Your task to perform on an android device: turn on wifi Image 0: 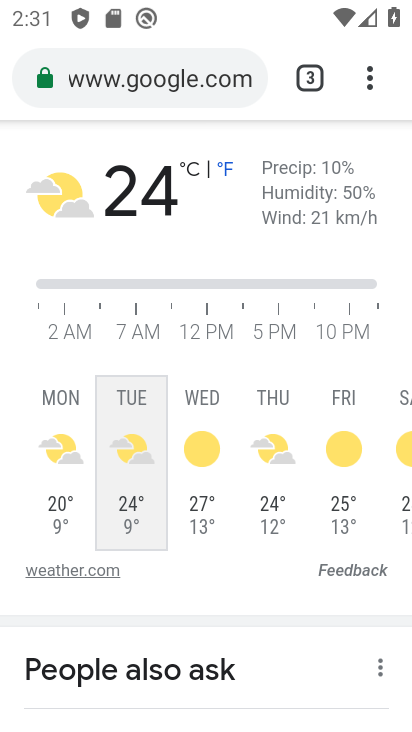
Step 0: press home button
Your task to perform on an android device: turn on wifi Image 1: 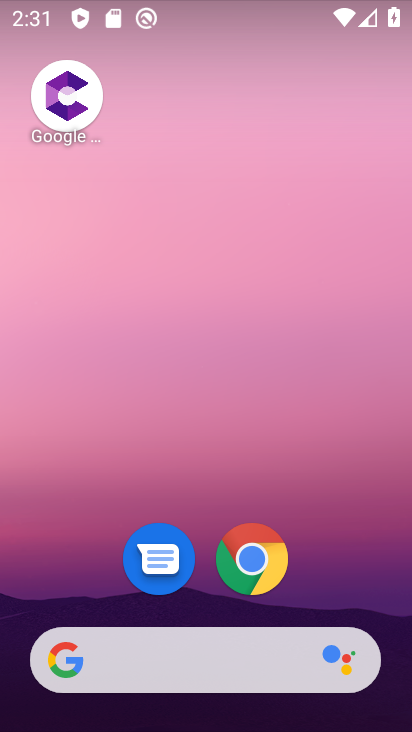
Step 1: press home button
Your task to perform on an android device: turn on wifi Image 2: 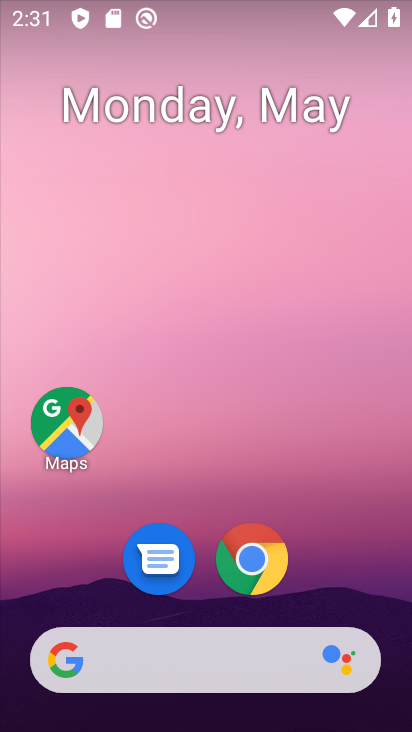
Step 2: drag from (185, 465) to (114, 82)
Your task to perform on an android device: turn on wifi Image 3: 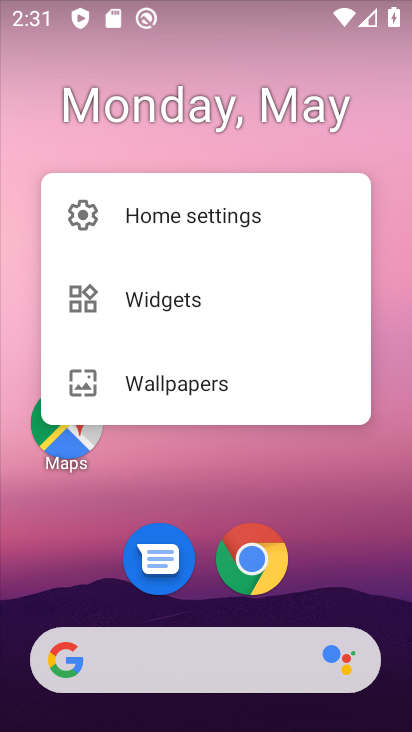
Step 3: click (228, 471)
Your task to perform on an android device: turn on wifi Image 4: 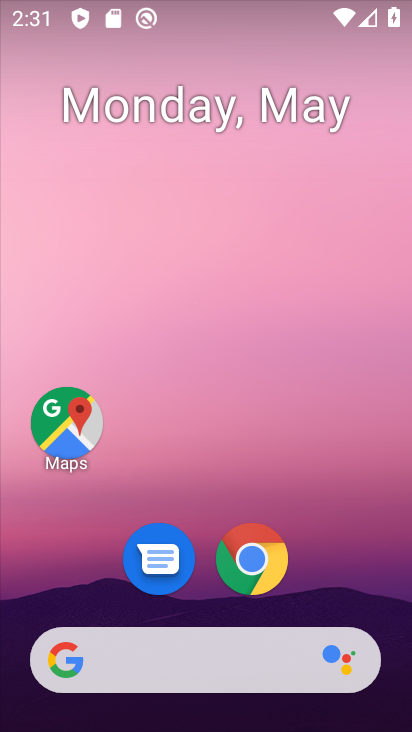
Step 4: drag from (228, 471) to (296, 94)
Your task to perform on an android device: turn on wifi Image 5: 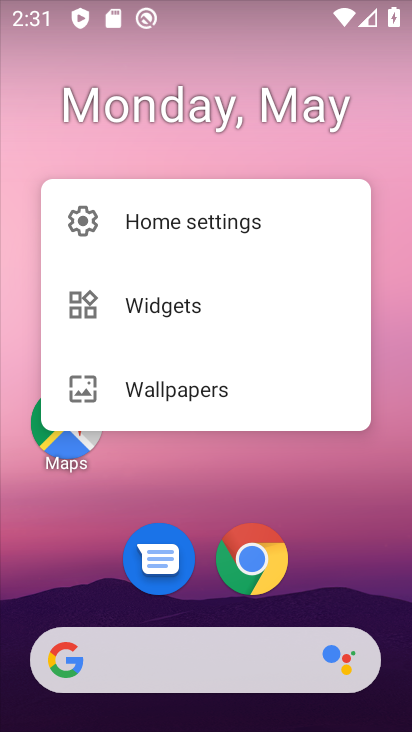
Step 5: click (326, 474)
Your task to perform on an android device: turn on wifi Image 6: 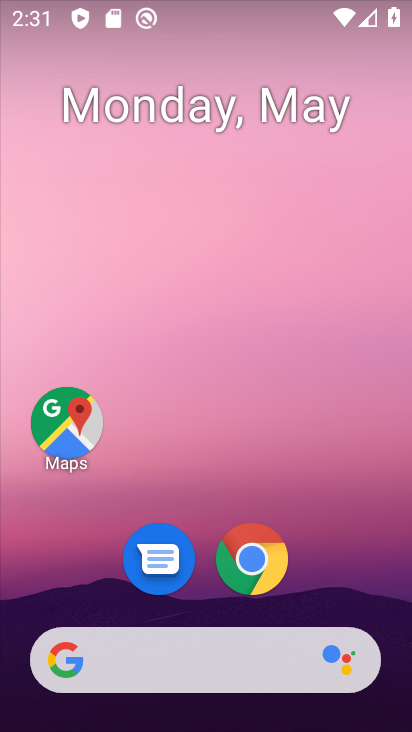
Step 6: drag from (354, 603) to (281, 0)
Your task to perform on an android device: turn on wifi Image 7: 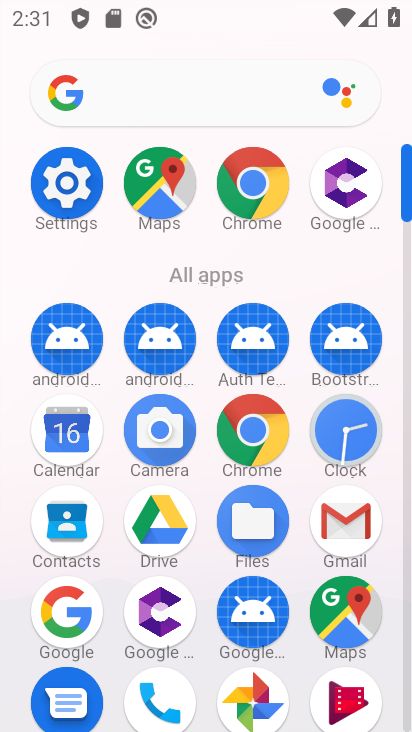
Step 7: click (80, 174)
Your task to perform on an android device: turn on wifi Image 8: 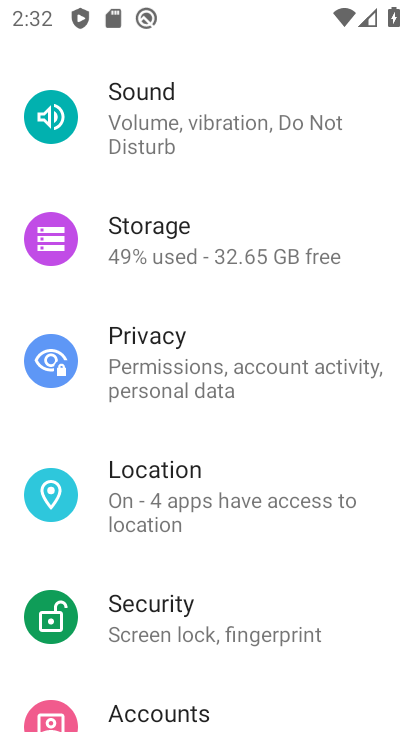
Step 8: drag from (160, 167) to (172, 489)
Your task to perform on an android device: turn on wifi Image 9: 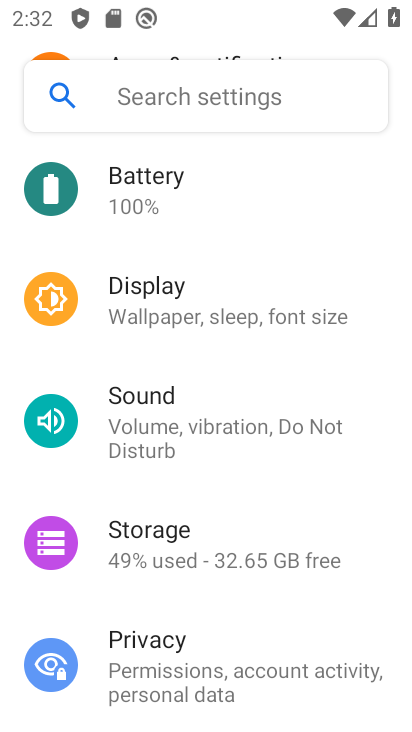
Step 9: drag from (211, 242) to (212, 575)
Your task to perform on an android device: turn on wifi Image 10: 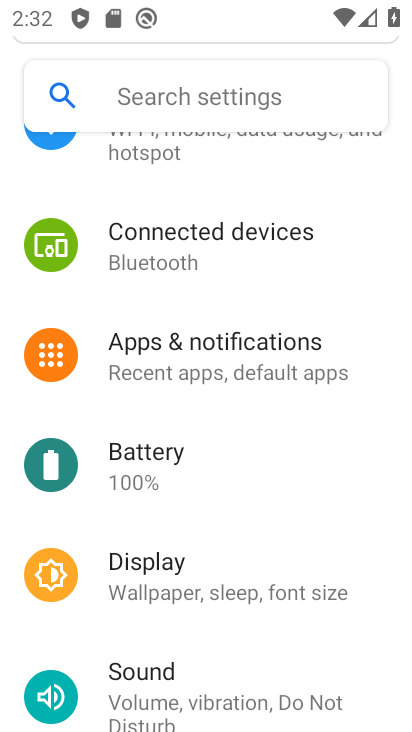
Step 10: drag from (138, 177) to (136, 469)
Your task to perform on an android device: turn on wifi Image 11: 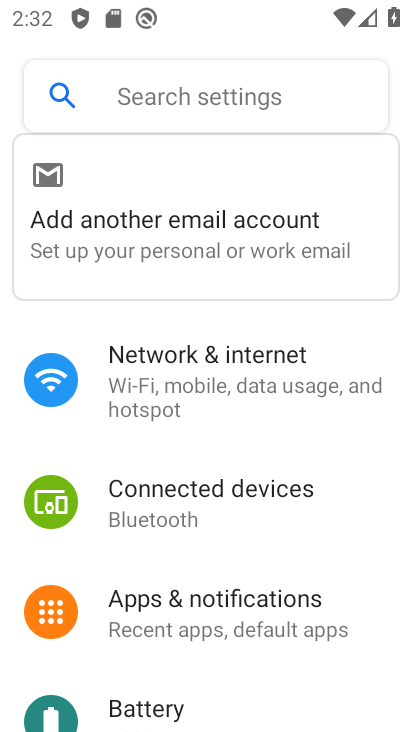
Step 11: click (141, 387)
Your task to perform on an android device: turn on wifi Image 12: 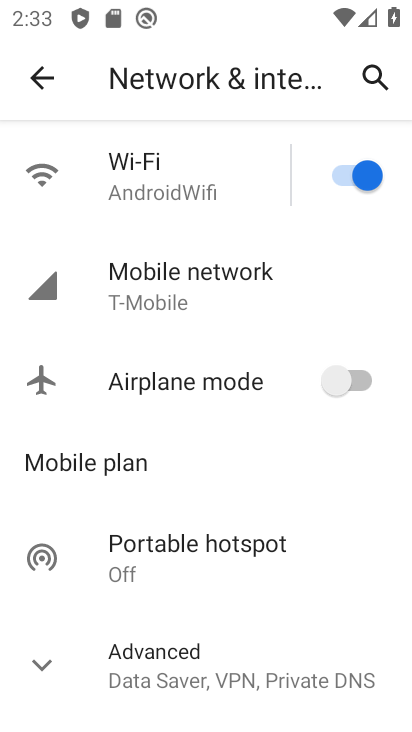
Step 12: task complete